Your task to perform on an android device: What's the news in Argentina? Image 0: 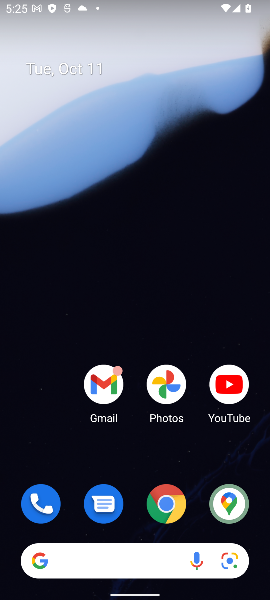
Step 0: click (85, 563)
Your task to perform on an android device: What's the news in Argentina? Image 1: 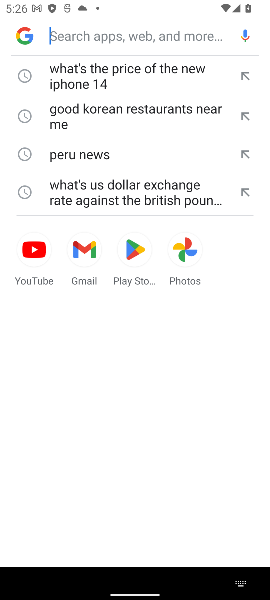
Step 1: click (85, 34)
Your task to perform on an android device: What's the news in Argentina? Image 2: 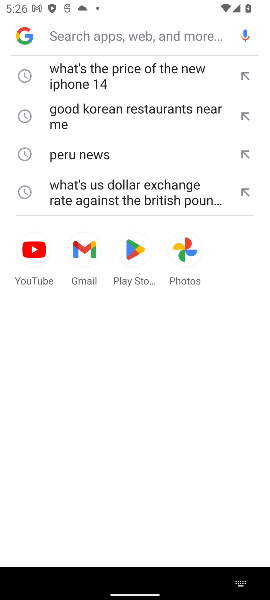
Step 2: type "What's the news in Argentina?"
Your task to perform on an android device: What's the news in Argentina? Image 3: 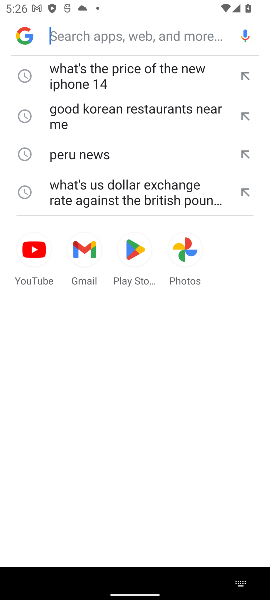
Step 3: click (172, 525)
Your task to perform on an android device: What's the news in Argentina? Image 4: 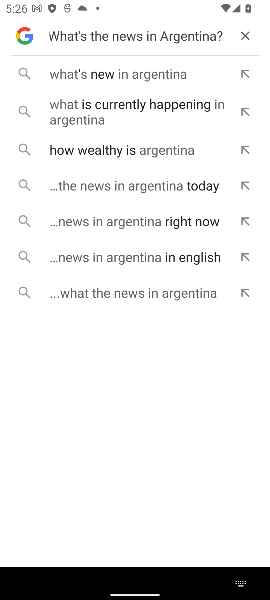
Step 4: click (125, 68)
Your task to perform on an android device: What's the news in Argentina? Image 5: 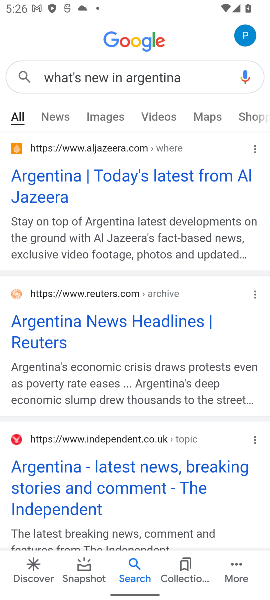
Step 5: drag from (124, 440) to (149, 557)
Your task to perform on an android device: What's the news in Argentina? Image 6: 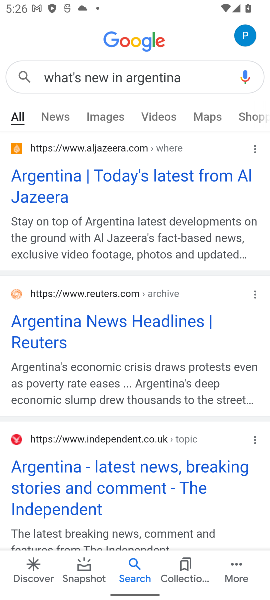
Step 6: click (90, 179)
Your task to perform on an android device: What's the news in Argentina? Image 7: 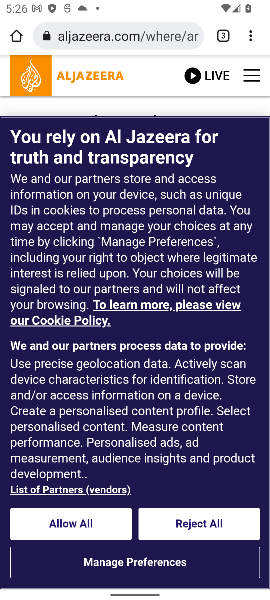
Step 7: task complete